Your task to perform on an android device: clear history in the chrome app Image 0: 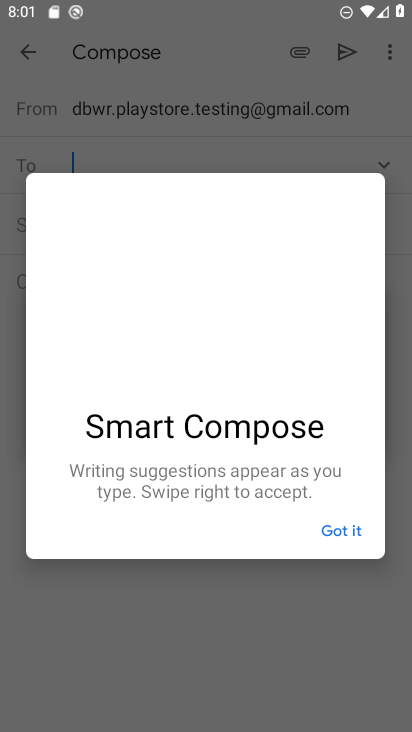
Step 0: press home button
Your task to perform on an android device: clear history in the chrome app Image 1: 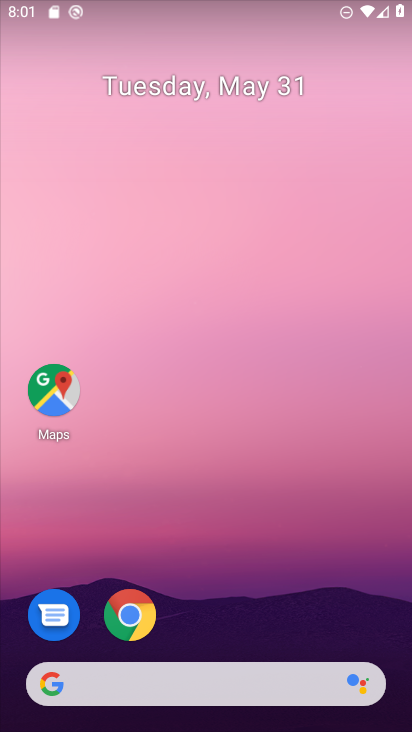
Step 1: click (133, 603)
Your task to perform on an android device: clear history in the chrome app Image 2: 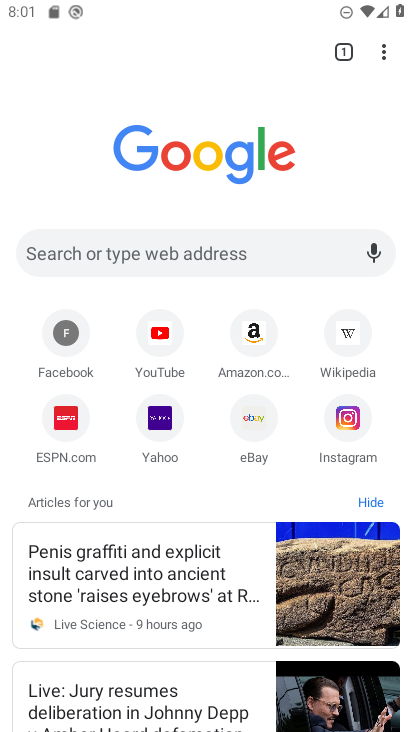
Step 2: click (372, 55)
Your task to perform on an android device: clear history in the chrome app Image 3: 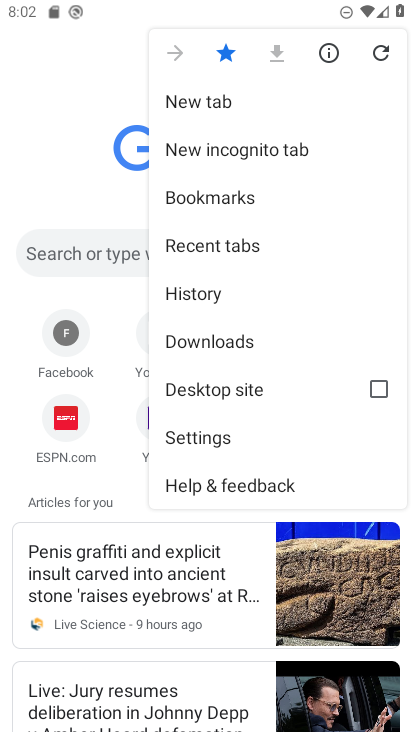
Step 3: click (211, 273)
Your task to perform on an android device: clear history in the chrome app Image 4: 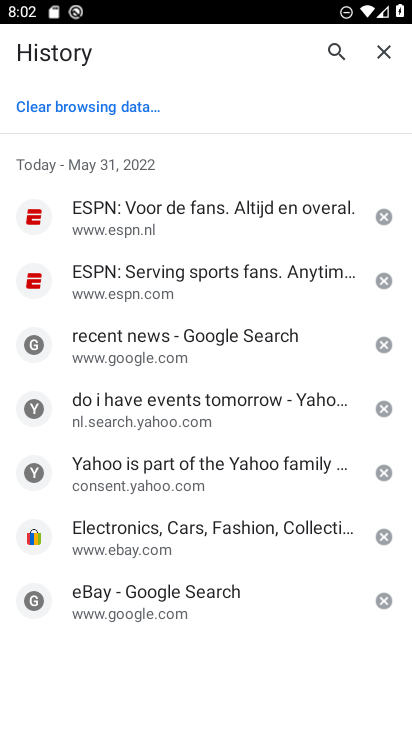
Step 4: click (79, 102)
Your task to perform on an android device: clear history in the chrome app Image 5: 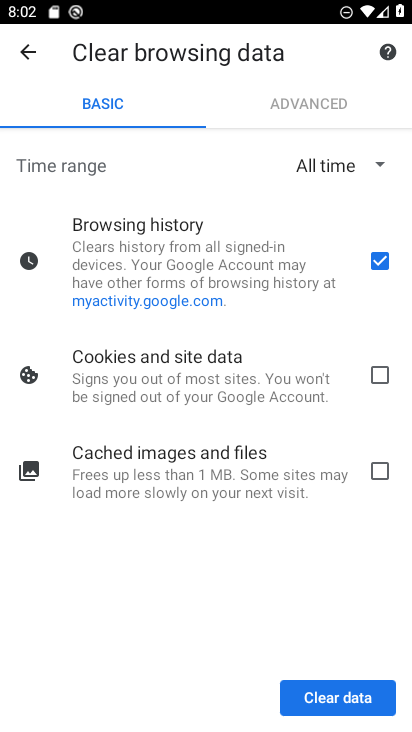
Step 5: click (344, 387)
Your task to perform on an android device: clear history in the chrome app Image 6: 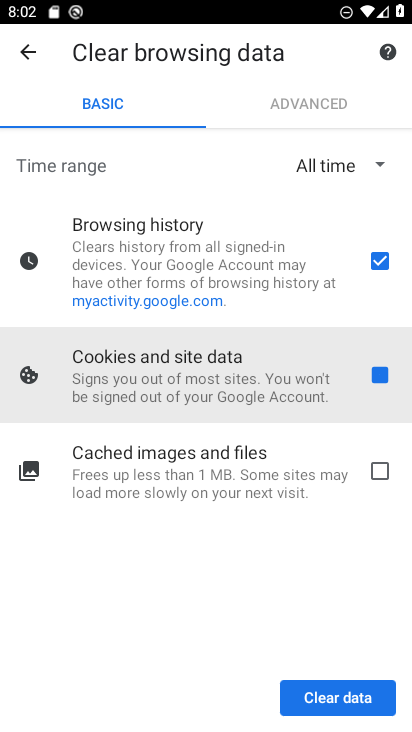
Step 6: click (348, 495)
Your task to perform on an android device: clear history in the chrome app Image 7: 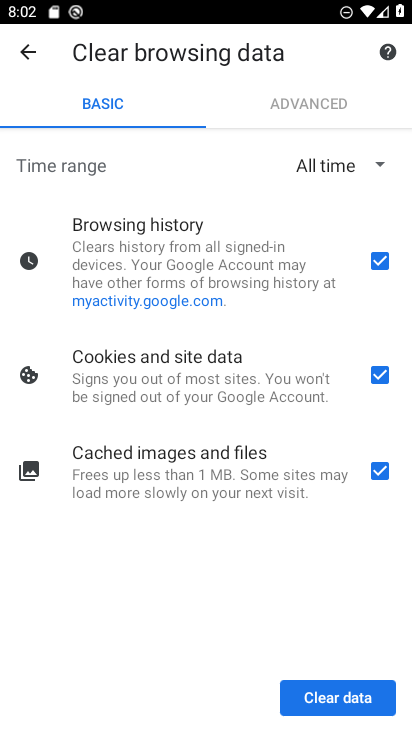
Step 7: click (345, 704)
Your task to perform on an android device: clear history in the chrome app Image 8: 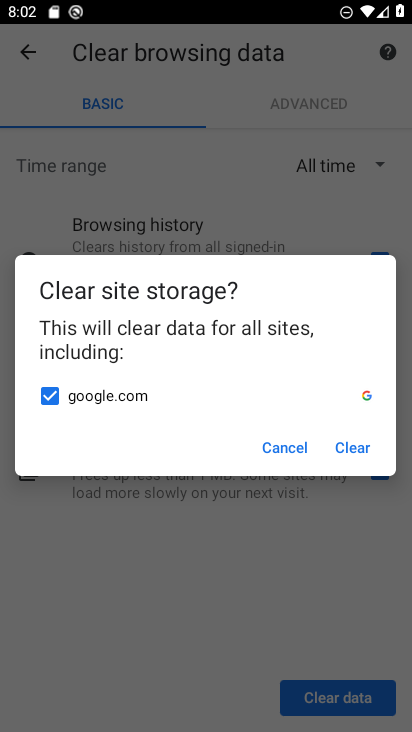
Step 8: click (349, 442)
Your task to perform on an android device: clear history in the chrome app Image 9: 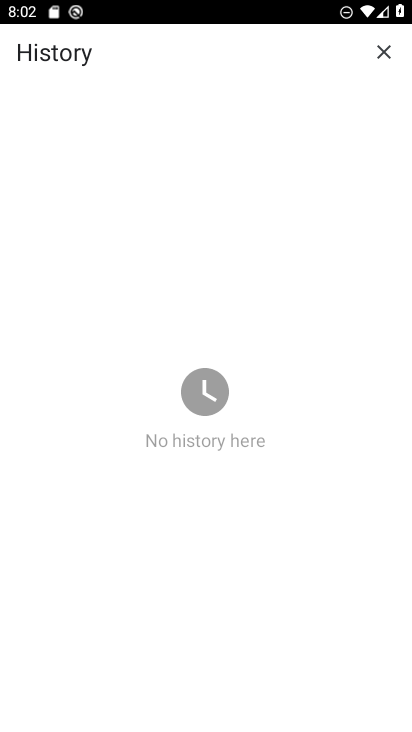
Step 9: task complete